Your task to perform on an android device: move a message to another label in the gmail app Image 0: 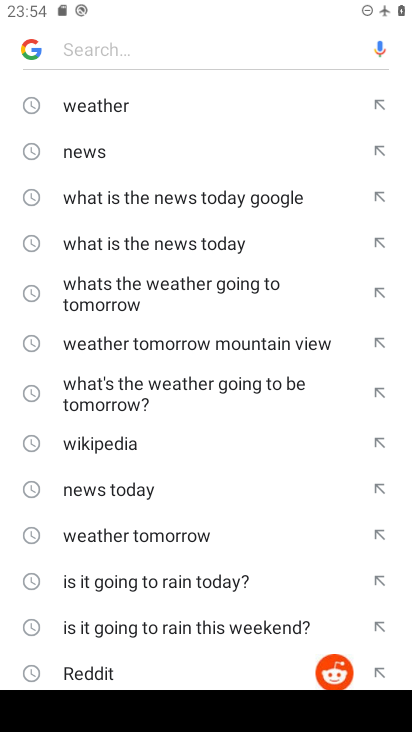
Step 0: press home button
Your task to perform on an android device: move a message to another label in the gmail app Image 1: 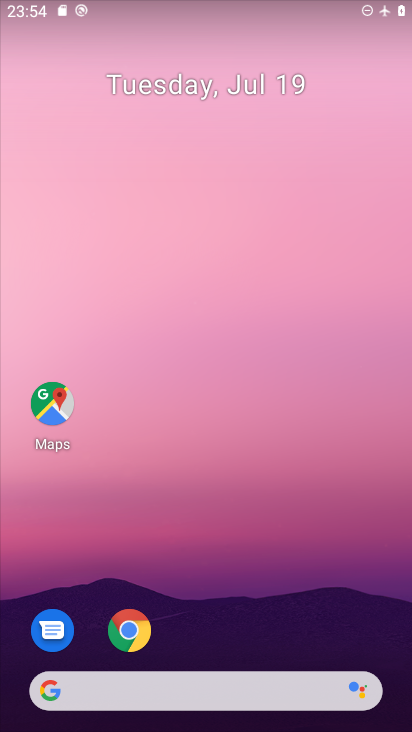
Step 1: drag from (201, 600) to (162, 140)
Your task to perform on an android device: move a message to another label in the gmail app Image 2: 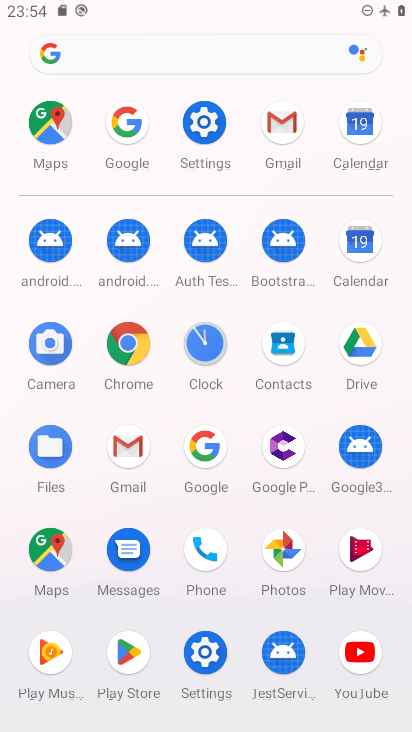
Step 2: click (300, 134)
Your task to perform on an android device: move a message to another label in the gmail app Image 3: 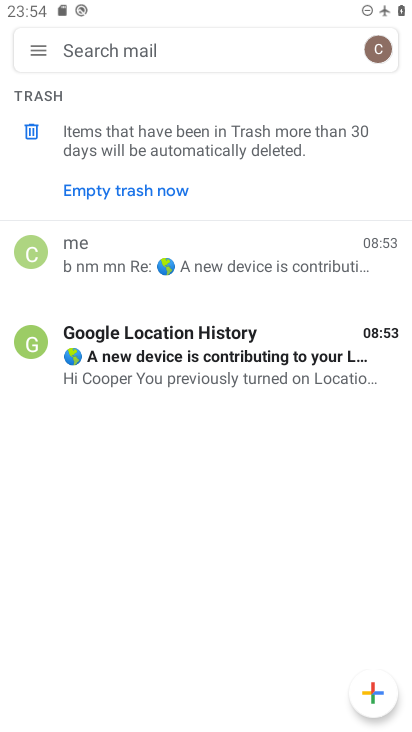
Step 3: click (144, 263)
Your task to perform on an android device: move a message to another label in the gmail app Image 4: 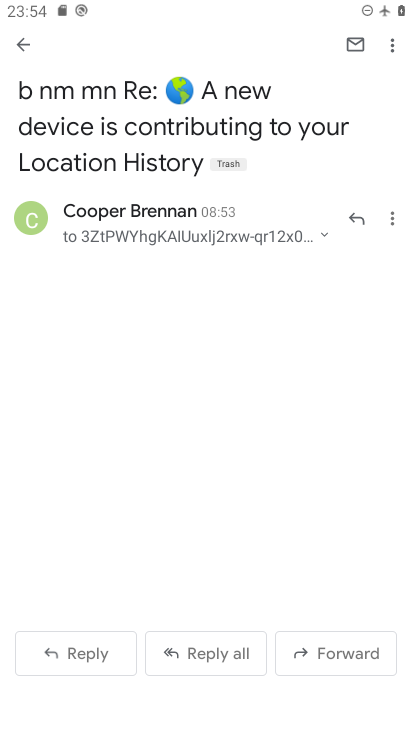
Step 4: click (382, 51)
Your task to perform on an android device: move a message to another label in the gmail app Image 5: 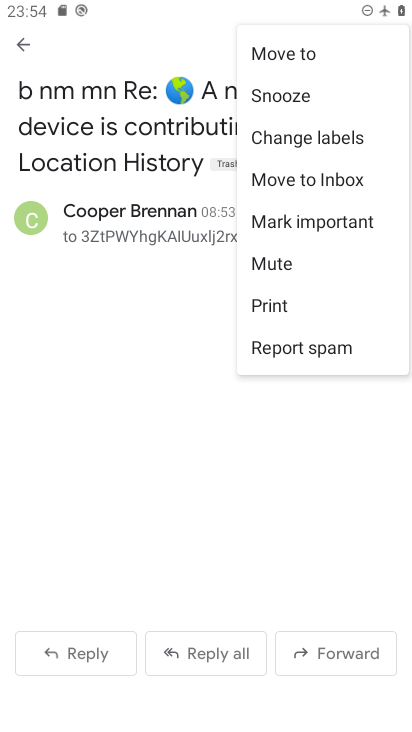
Step 5: click (318, 59)
Your task to perform on an android device: move a message to another label in the gmail app Image 6: 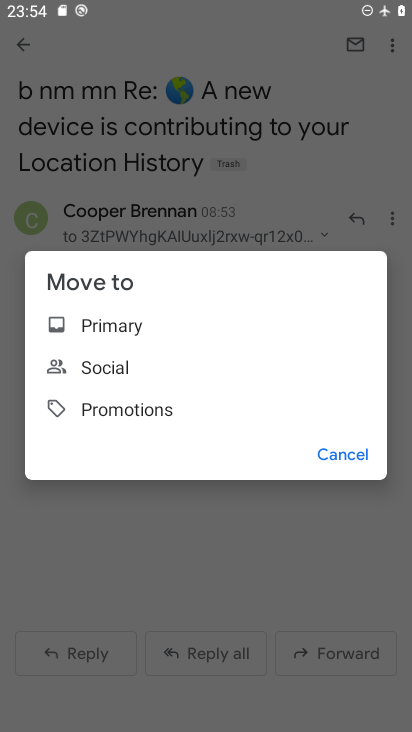
Step 6: click (121, 372)
Your task to perform on an android device: move a message to another label in the gmail app Image 7: 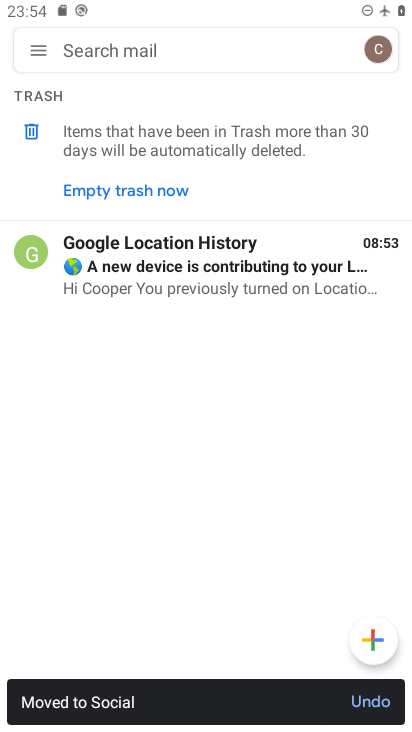
Step 7: task complete